Your task to perform on an android device: What's the weather today? Image 0: 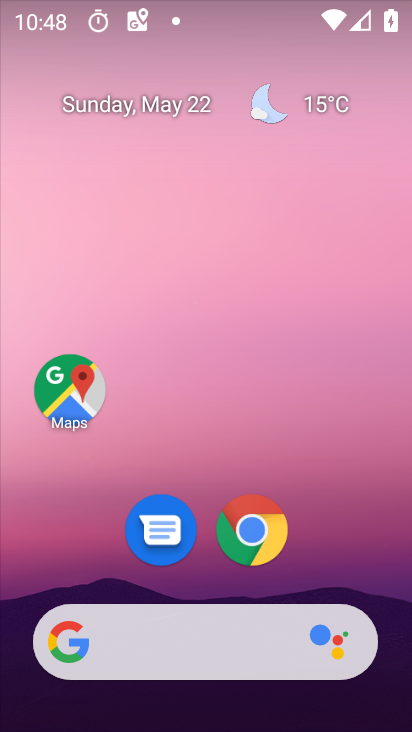
Step 0: click (329, 98)
Your task to perform on an android device: What's the weather today? Image 1: 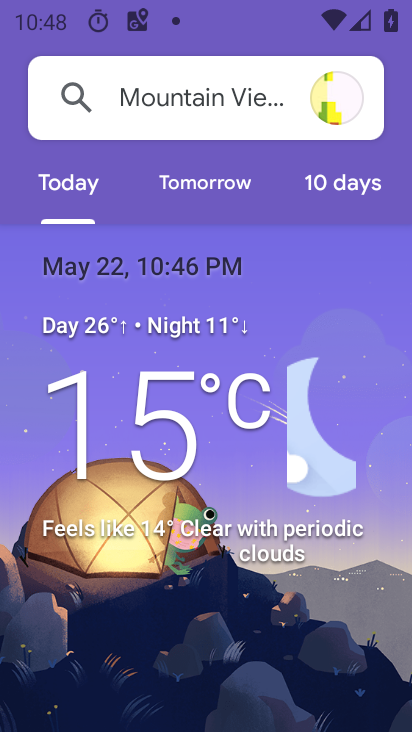
Step 1: task complete